Your task to perform on an android device: Open Chrome and go to the settings page Image 0: 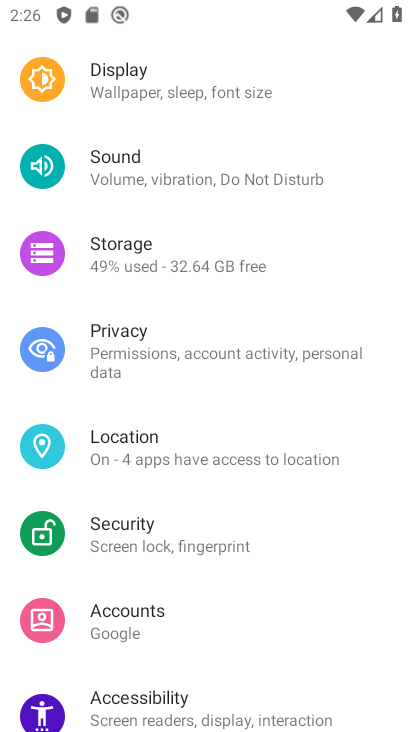
Step 0: press home button
Your task to perform on an android device: Open Chrome and go to the settings page Image 1: 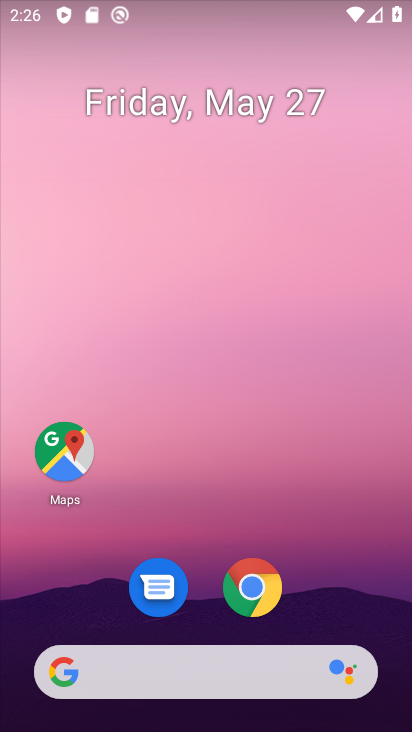
Step 1: click (252, 586)
Your task to perform on an android device: Open Chrome and go to the settings page Image 2: 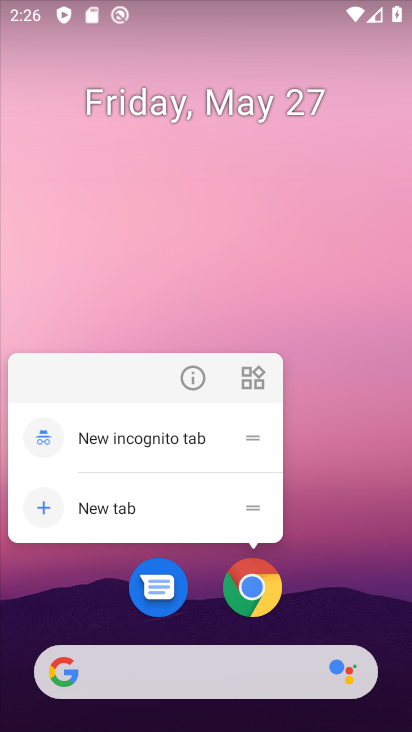
Step 2: click (262, 590)
Your task to perform on an android device: Open Chrome and go to the settings page Image 3: 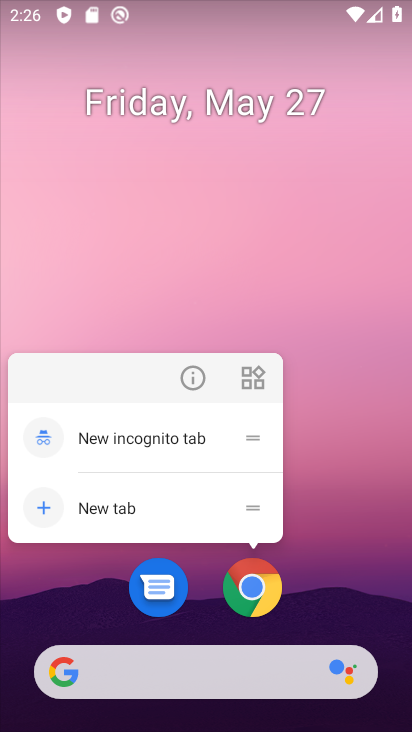
Step 3: click (320, 608)
Your task to perform on an android device: Open Chrome and go to the settings page Image 4: 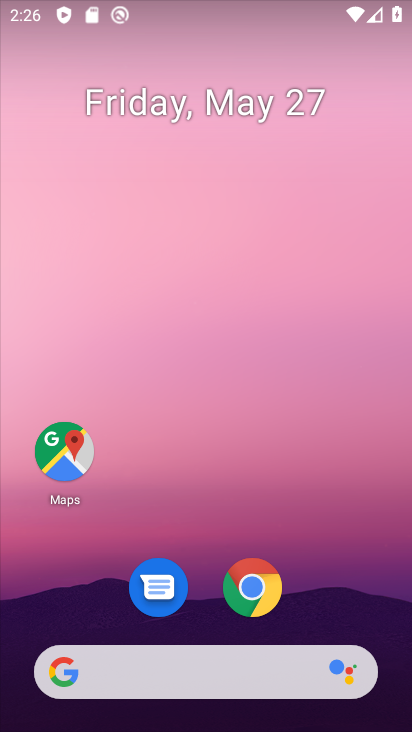
Step 4: drag from (327, 614) to (373, 198)
Your task to perform on an android device: Open Chrome and go to the settings page Image 5: 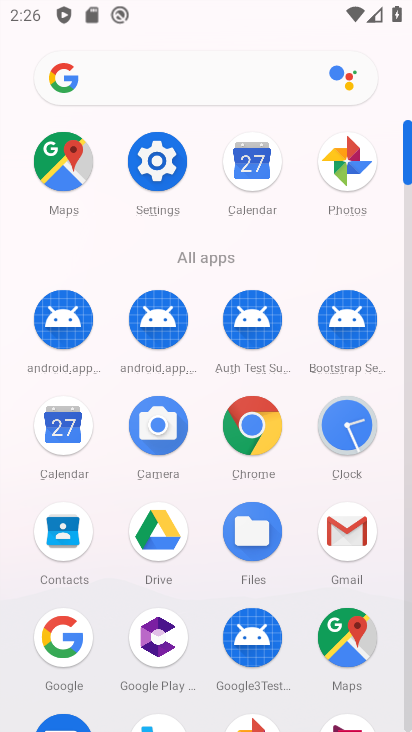
Step 5: click (255, 426)
Your task to perform on an android device: Open Chrome and go to the settings page Image 6: 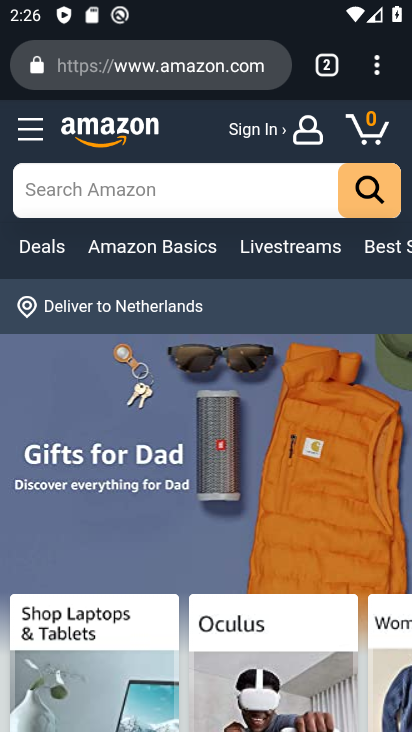
Step 6: click (385, 65)
Your task to perform on an android device: Open Chrome and go to the settings page Image 7: 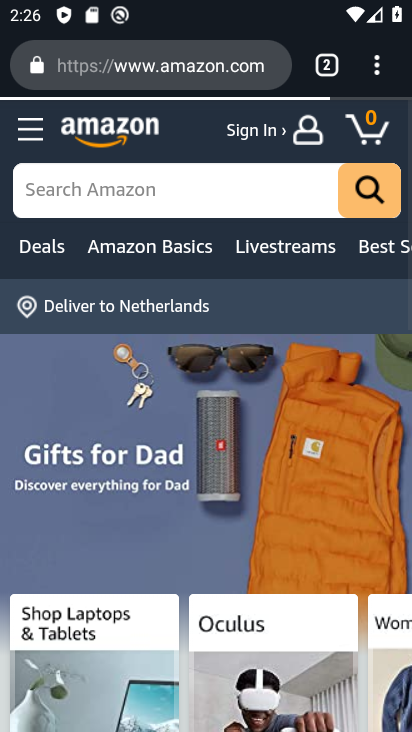
Step 7: task complete